Your task to perform on an android device: change keyboard looks Image 0: 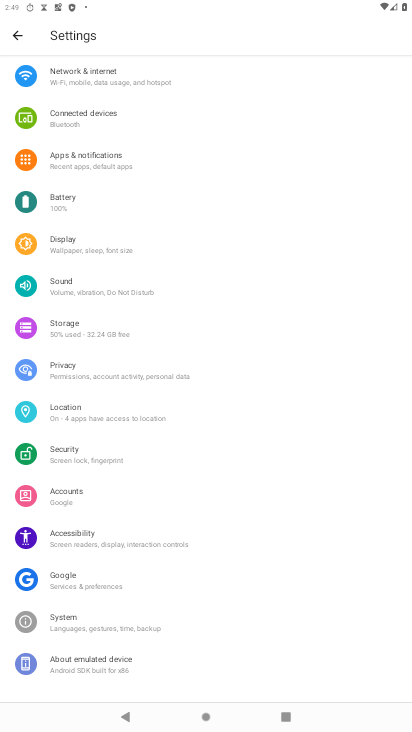
Step 0: click (111, 538)
Your task to perform on an android device: change keyboard looks Image 1: 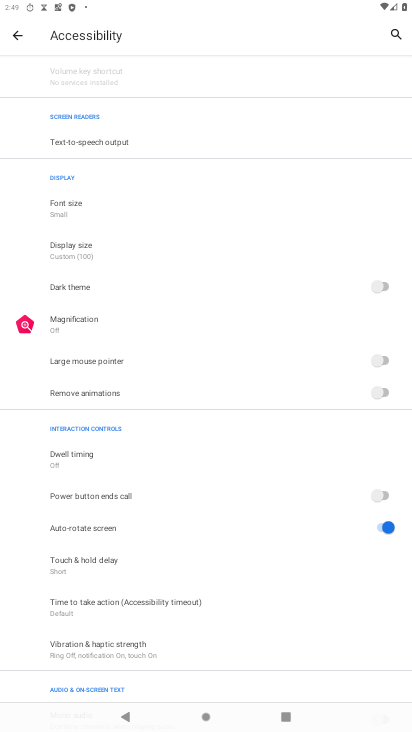
Step 1: press back button
Your task to perform on an android device: change keyboard looks Image 2: 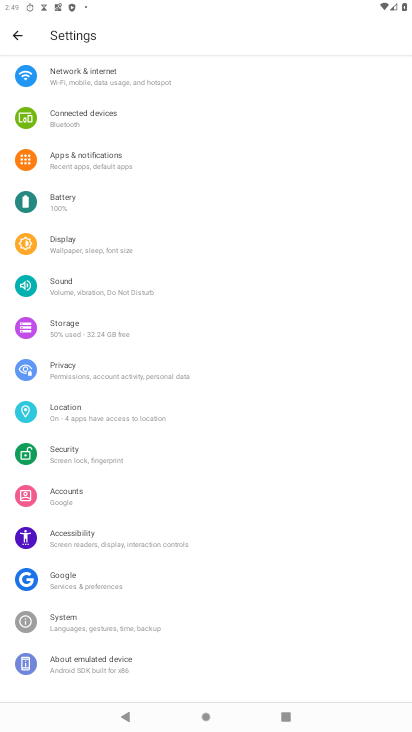
Step 2: click (48, 535)
Your task to perform on an android device: change keyboard looks Image 3: 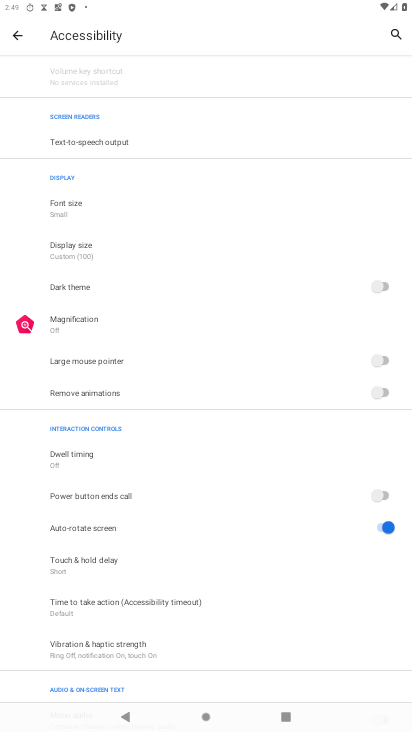
Step 3: press back button
Your task to perform on an android device: change keyboard looks Image 4: 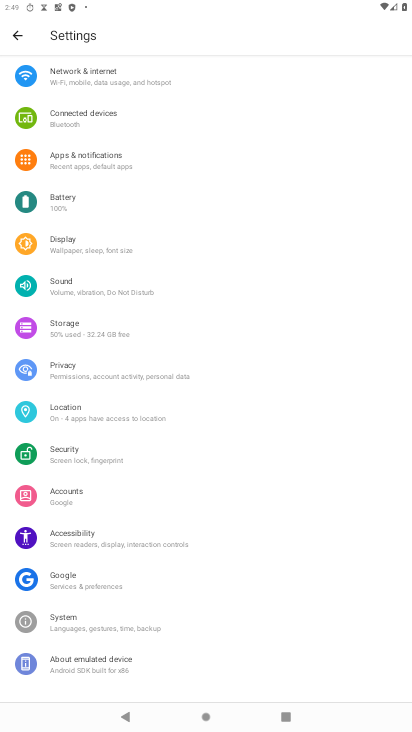
Step 4: click (104, 615)
Your task to perform on an android device: change keyboard looks Image 5: 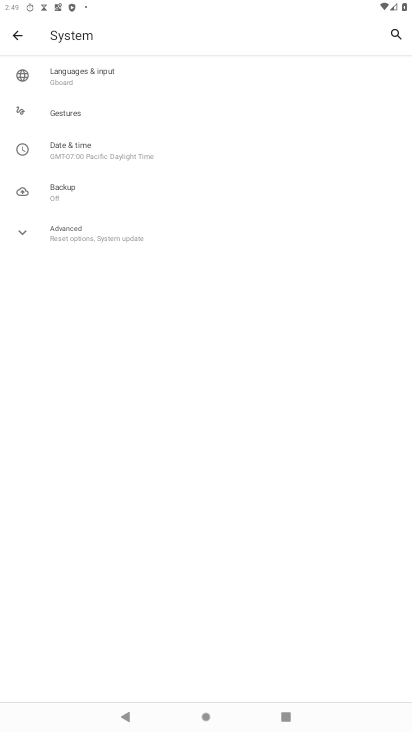
Step 5: click (84, 70)
Your task to perform on an android device: change keyboard looks Image 6: 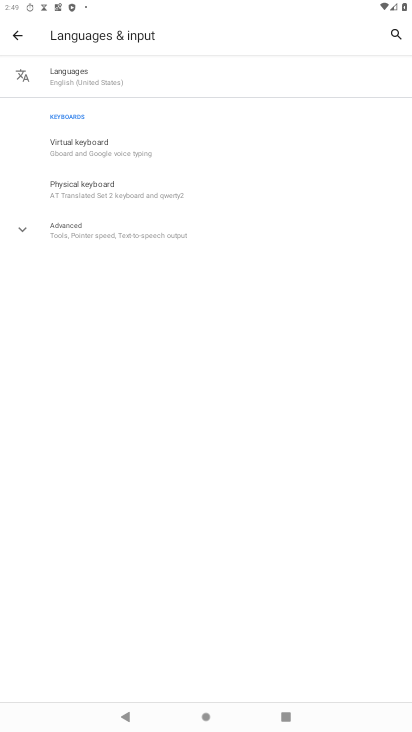
Step 6: click (91, 151)
Your task to perform on an android device: change keyboard looks Image 7: 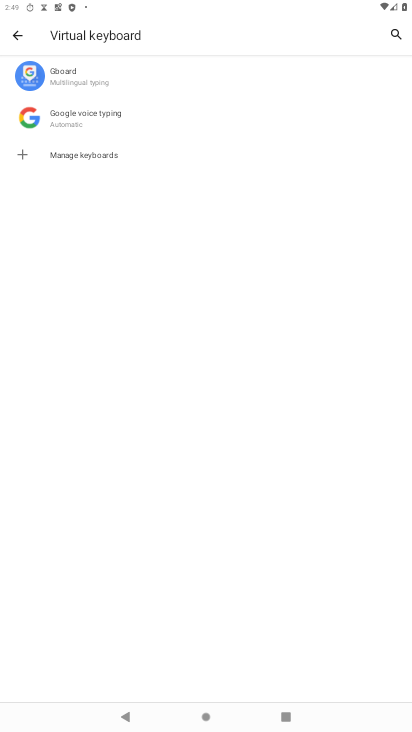
Step 7: click (78, 73)
Your task to perform on an android device: change keyboard looks Image 8: 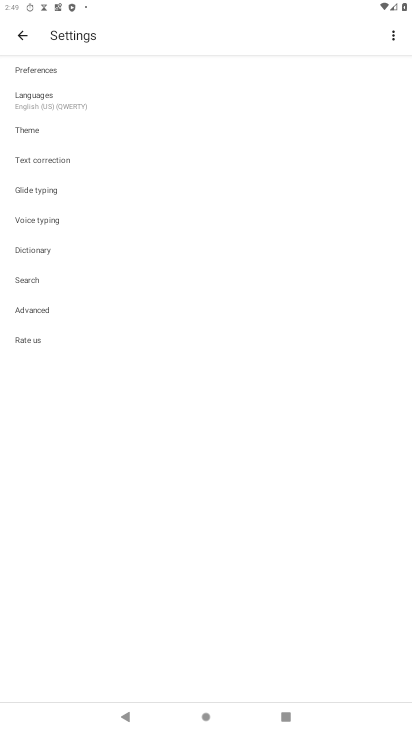
Step 8: click (43, 122)
Your task to perform on an android device: change keyboard looks Image 9: 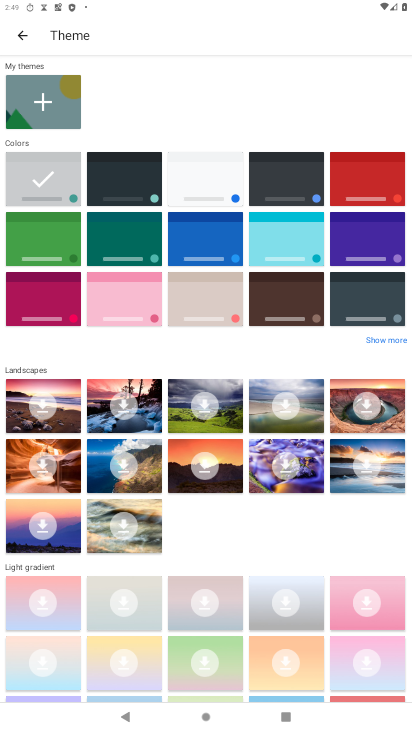
Step 9: click (217, 233)
Your task to perform on an android device: change keyboard looks Image 10: 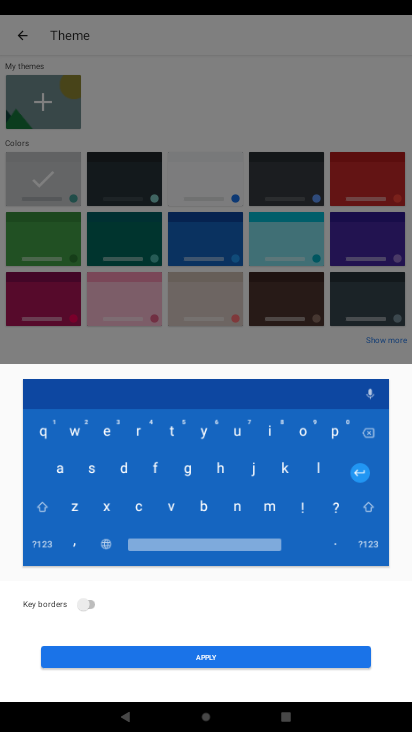
Step 10: click (252, 653)
Your task to perform on an android device: change keyboard looks Image 11: 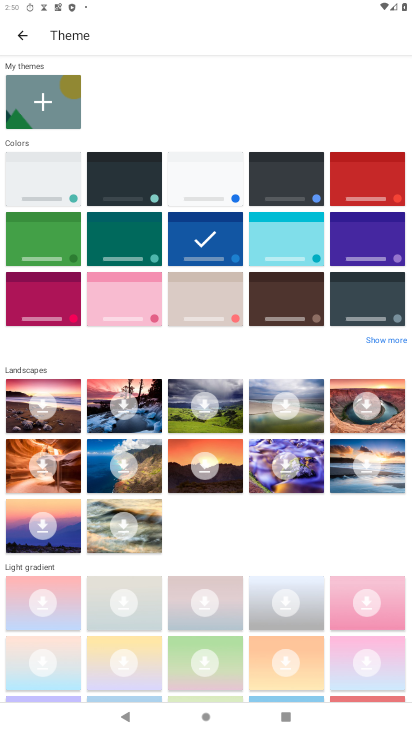
Step 11: task complete